Your task to perform on an android device: toggle show notifications on the lock screen Image 0: 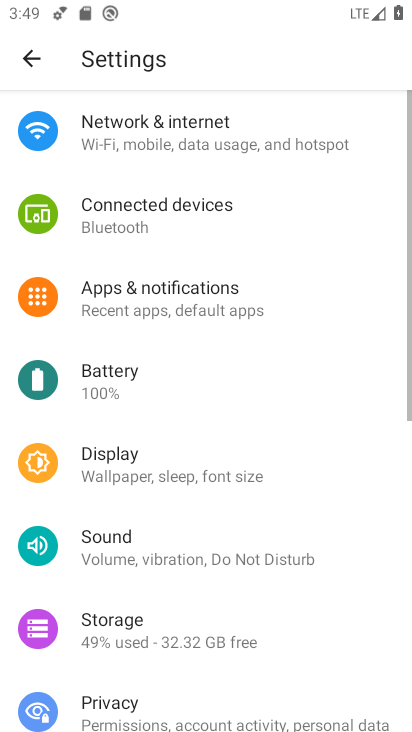
Step 0: drag from (361, 636) to (361, 552)
Your task to perform on an android device: toggle show notifications on the lock screen Image 1: 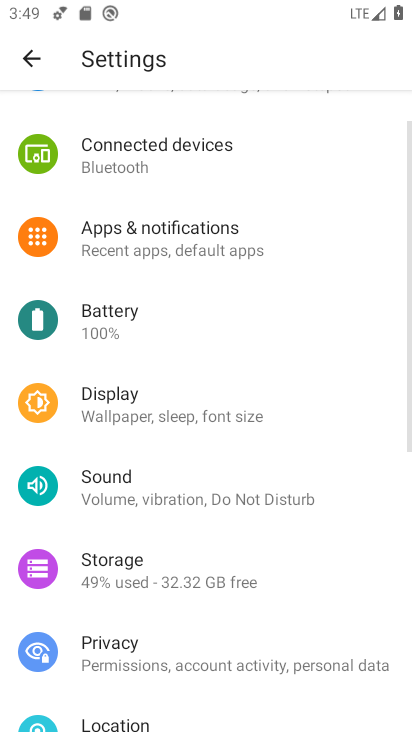
Step 1: drag from (359, 653) to (365, 577)
Your task to perform on an android device: toggle show notifications on the lock screen Image 2: 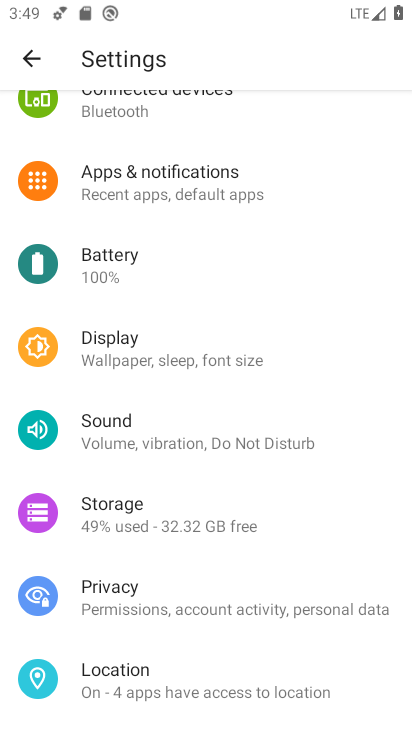
Step 2: drag from (369, 655) to (369, 585)
Your task to perform on an android device: toggle show notifications on the lock screen Image 3: 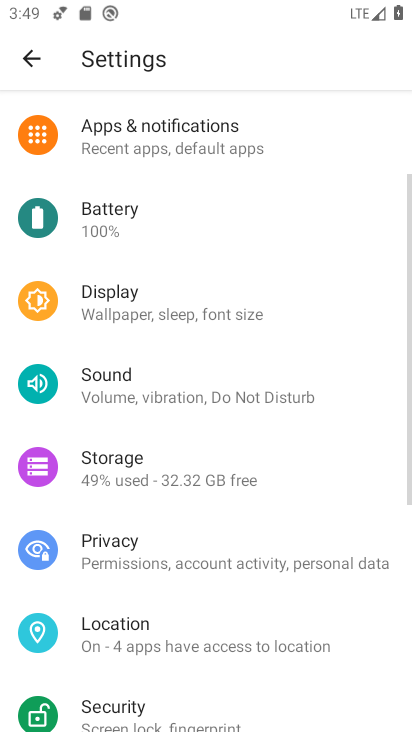
Step 3: drag from (375, 637) to (376, 569)
Your task to perform on an android device: toggle show notifications on the lock screen Image 4: 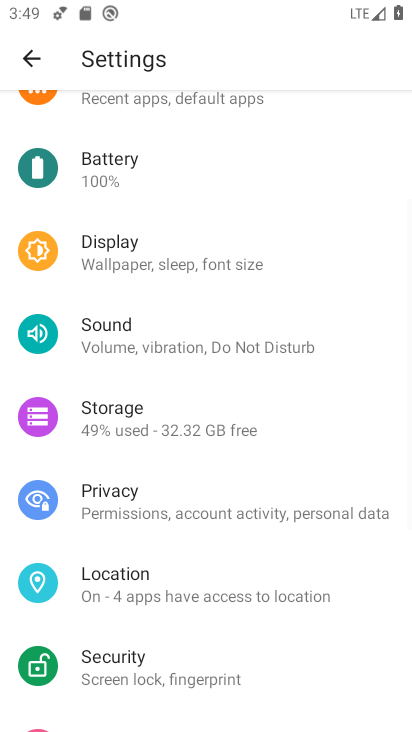
Step 4: drag from (377, 660) to (377, 581)
Your task to perform on an android device: toggle show notifications on the lock screen Image 5: 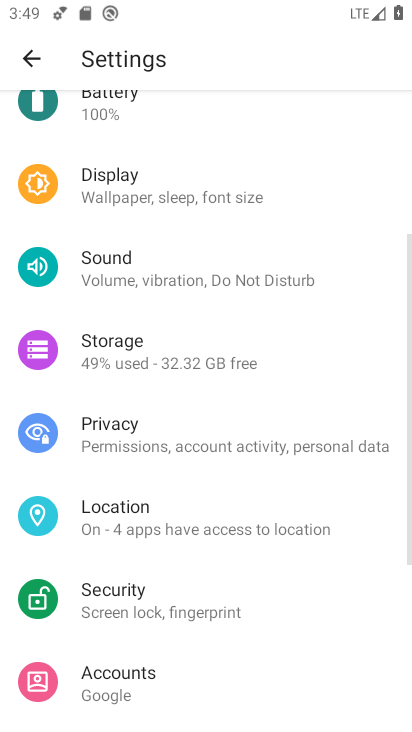
Step 5: drag from (375, 665) to (366, 558)
Your task to perform on an android device: toggle show notifications on the lock screen Image 6: 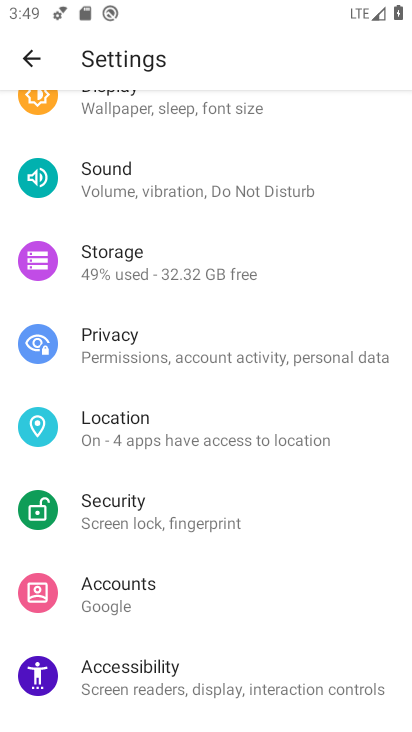
Step 6: drag from (371, 506) to (373, 580)
Your task to perform on an android device: toggle show notifications on the lock screen Image 7: 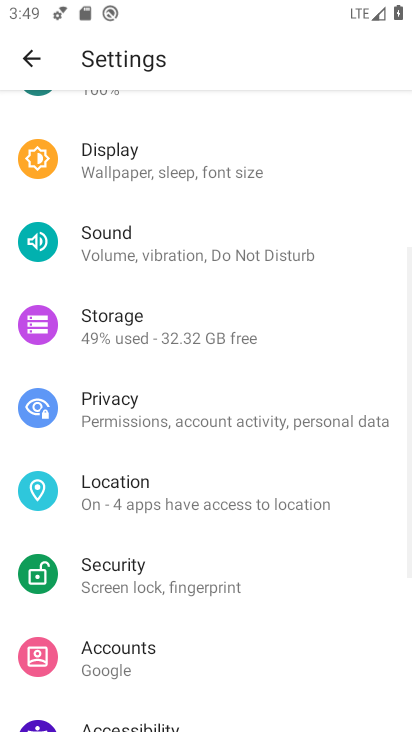
Step 7: drag from (363, 503) to (368, 578)
Your task to perform on an android device: toggle show notifications on the lock screen Image 8: 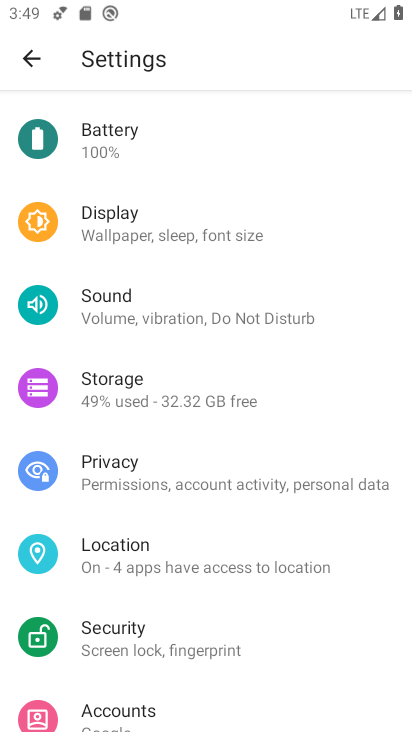
Step 8: drag from (362, 525) to (368, 607)
Your task to perform on an android device: toggle show notifications on the lock screen Image 9: 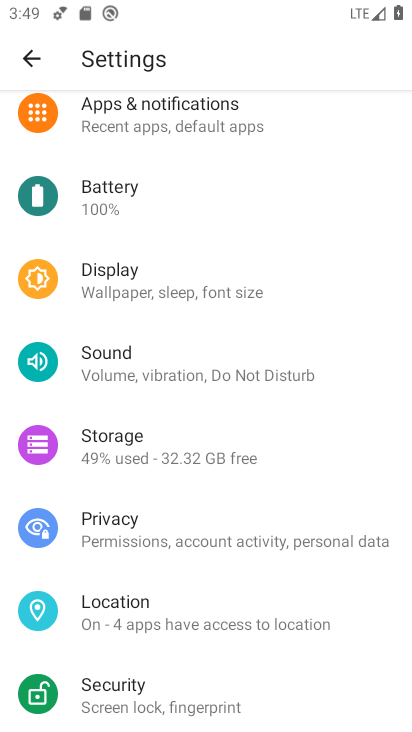
Step 9: drag from (364, 534) to (369, 599)
Your task to perform on an android device: toggle show notifications on the lock screen Image 10: 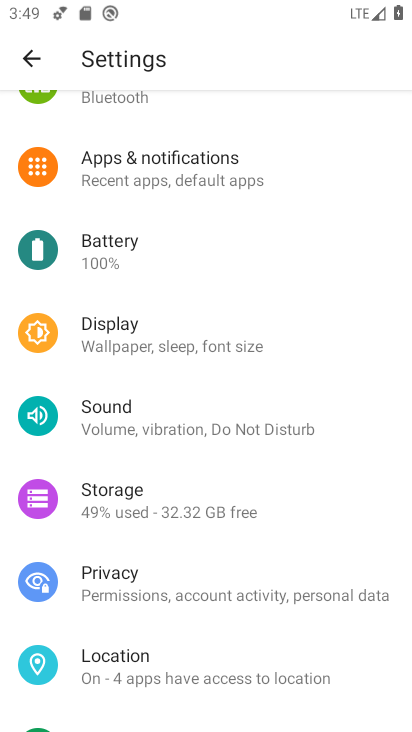
Step 10: drag from (365, 489) to (365, 577)
Your task to perform on an android device: toggle show notifications on the lock screen Image 11: 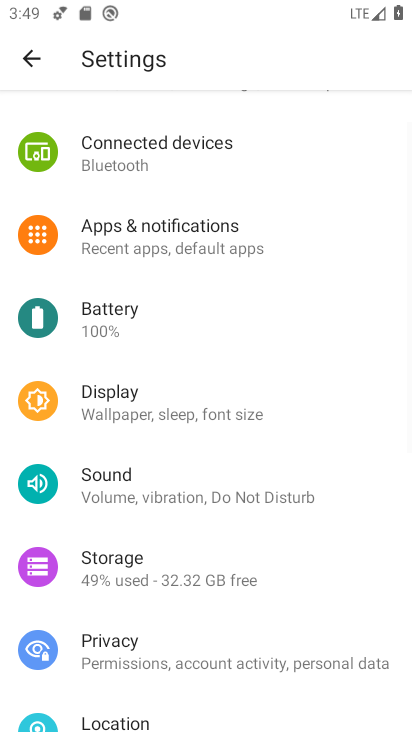
Step 11: drag from (356, 485) to (362, 585)
Your task to perform on an android device: toggle show notifications on the lock screen Image 12: 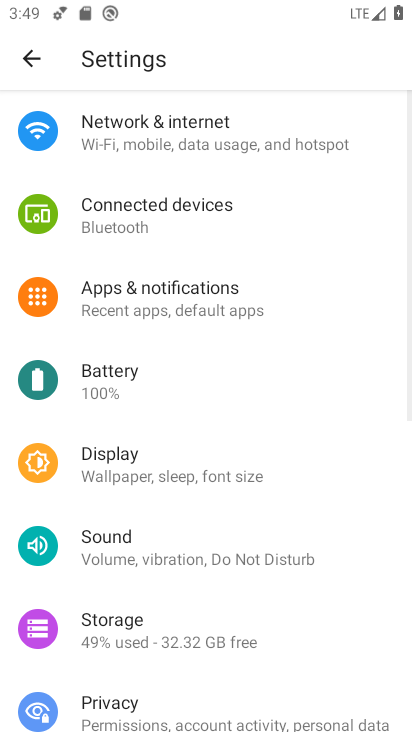
Step 12: drag from (349, 450) to (349, 552)
Your task to perform on an android device: toggle show notifications on the lock screen Image 13: 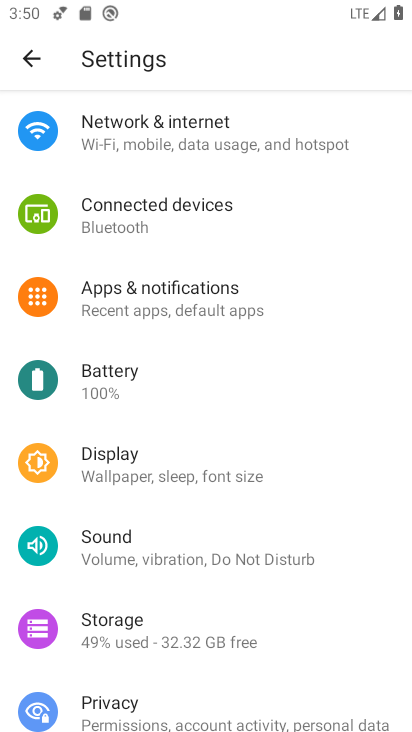
Step 13: click (260, 292)
Your task to perform on an android device: toggle show notifications on the lock screen Image 14: 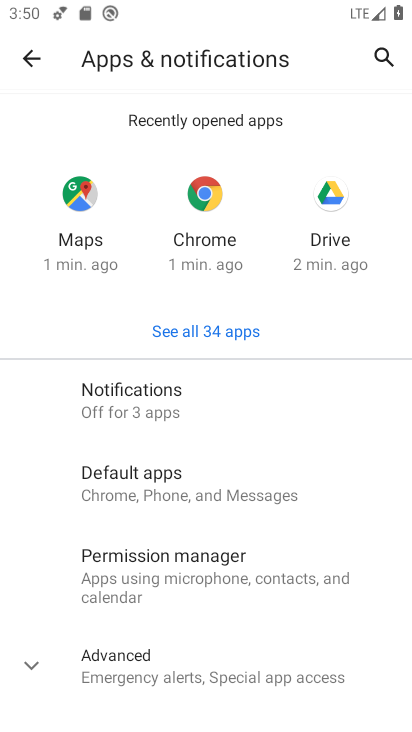
Step 14: click (164, 413)
Your task to perform on an android device: toggle show notifications on the lock screen Image 15: 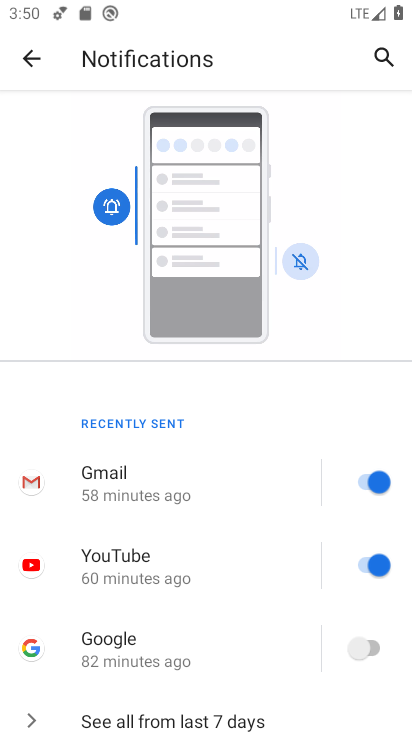
Step 15: drag from (257, 570) to (257, 454)
Your task to perform on an android device: toggle show notifications on the lock screen Image 16: 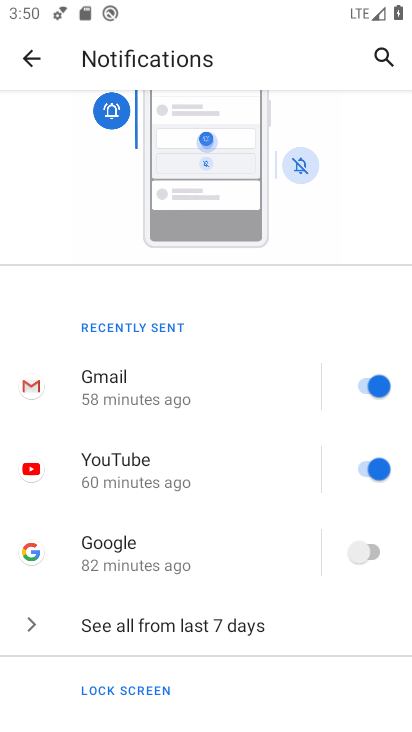
Step 16: drag from (269, 614) to (266, 461)
Your task to perform on an android device: toggle show notifications on the lock screen Image 17: 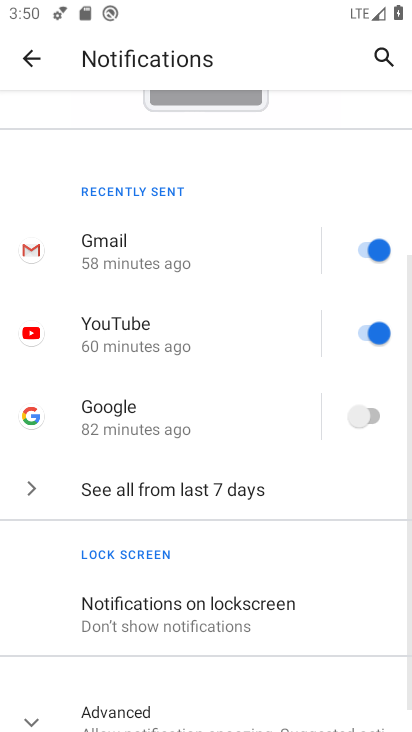
Step 17: drag from (257, 642) to (255, 443)
Your task to perform on an android device: toggle show notifications on the lock screen Image 18: 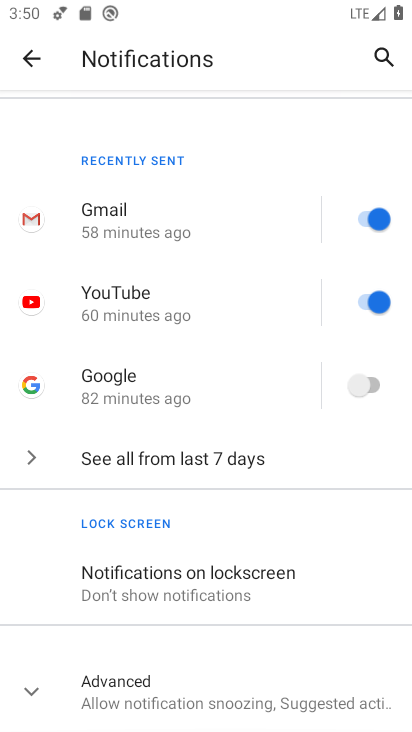
Step 18: click (227, 609)
Your task to perform on an android device: toggle show notifications on the lock screen Image 19: 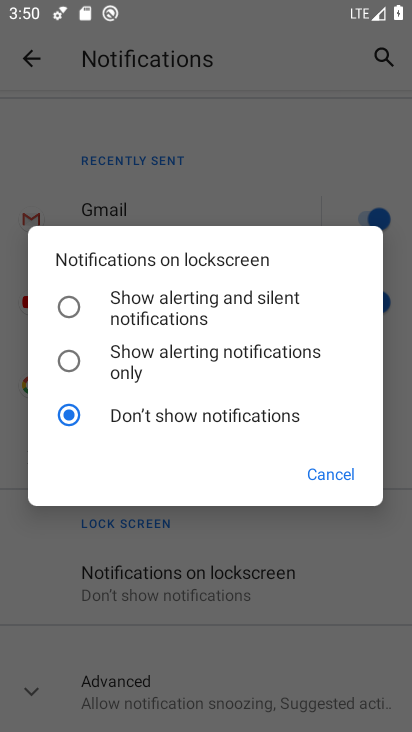
Step 19: click (85, 314)
Your task to perform on an android device: toggle show notifications on the lock screen Image 20: 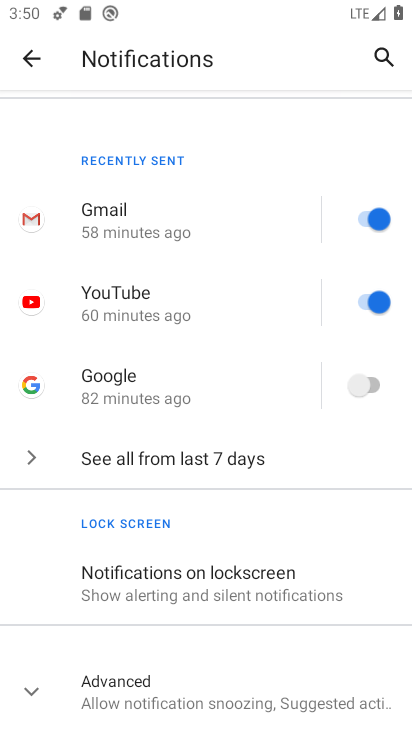
Step 20: task complete